Your task to perform on an android device: Show me productivity apps on the Play Store Image 0: 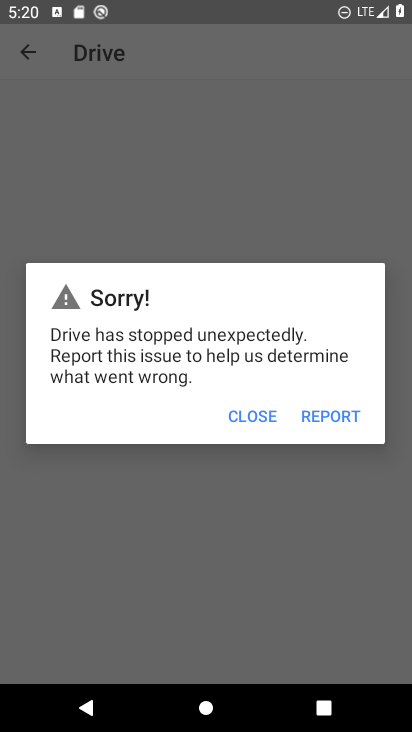
Step 0: press home button
Your task to perform on an android device: Show me productivity apps on the Play Store Image 1: 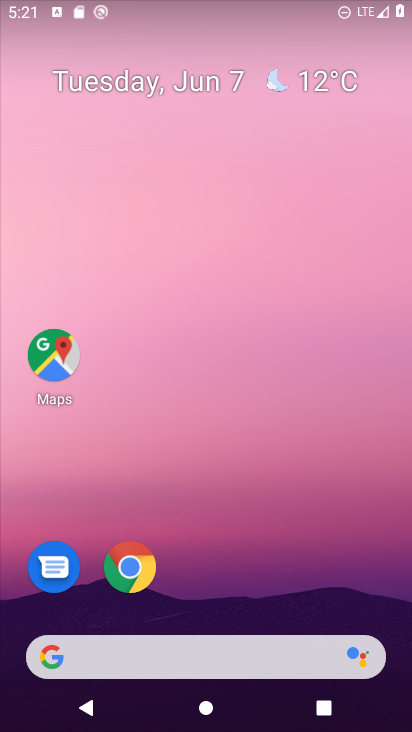
Step 1: drag from (196, 655) to (385, 7)
Your task to perform on an android device: Show me productivity apps on the Play Store Image 2: 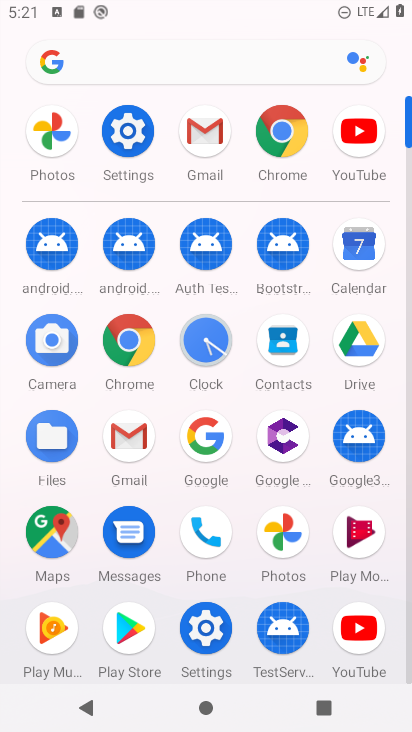
Step 2: click (141, 607)
Your task to perform on an android device: Show me productivity apps on the Play Store Image 3: 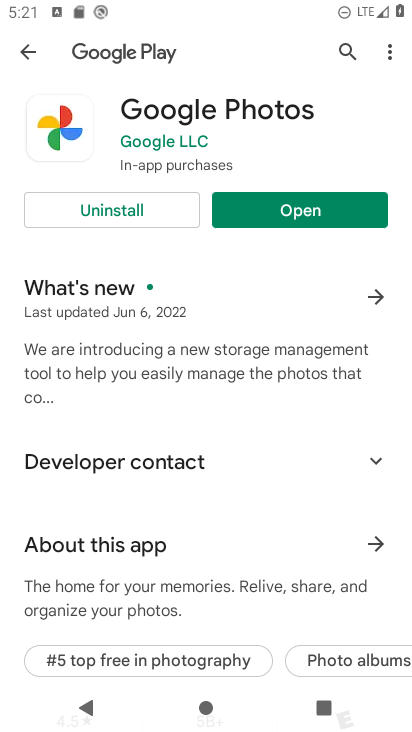
Step 3: click (291, 217)
Your task to perform on an android device: Show me productivity apps on the Play Store Image 4: 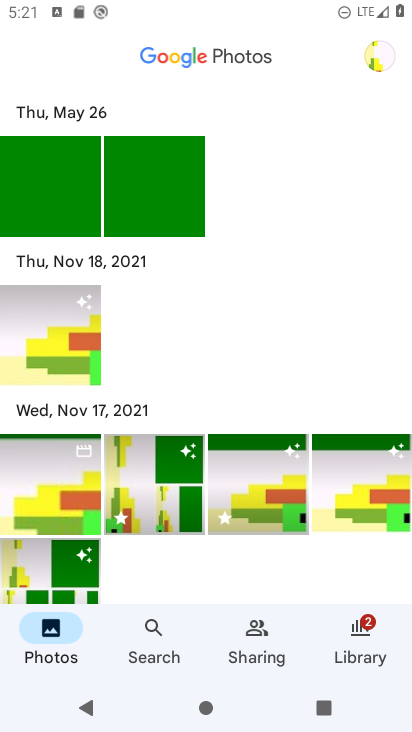
Step 4: press home button
Your task to perform on an android device: Show me productivity apps on the Play Store Image 5: 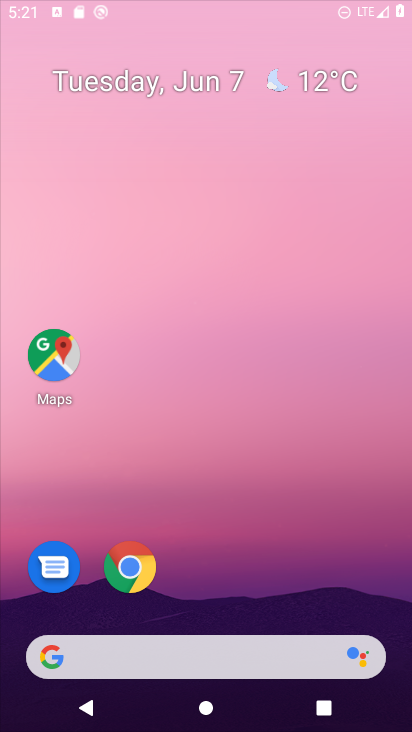
Step 5: drag from (310, 648) to (349, 91)
Your task to perform on an android device: Show me productivity apps on the Play Store Image 6: 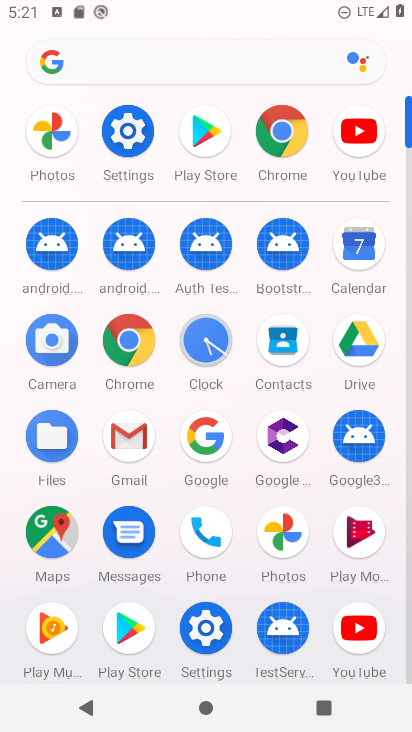
Step 6: click (138, 634)
Your task to perform on an android device: Show me productivity apps on the Play Store Image 7: 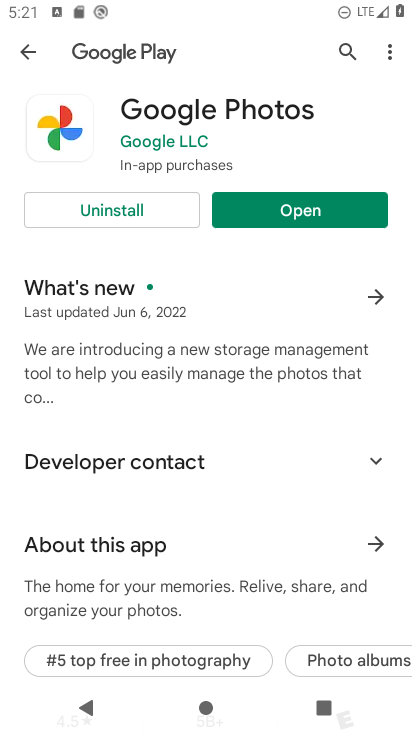
Step 7: press back button
Your task to perform on an android device: Show me productivity apps on the Play Store Image 8: 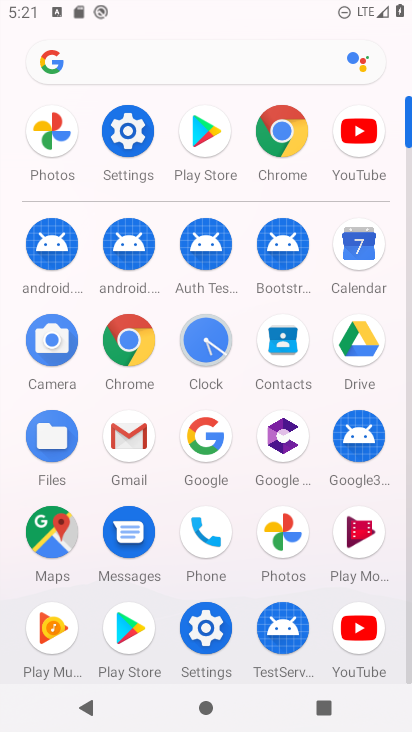
Step 8: click (122, 615)
Your task to perform on an android device: Show me productivity apps on the Play Store Image 9: 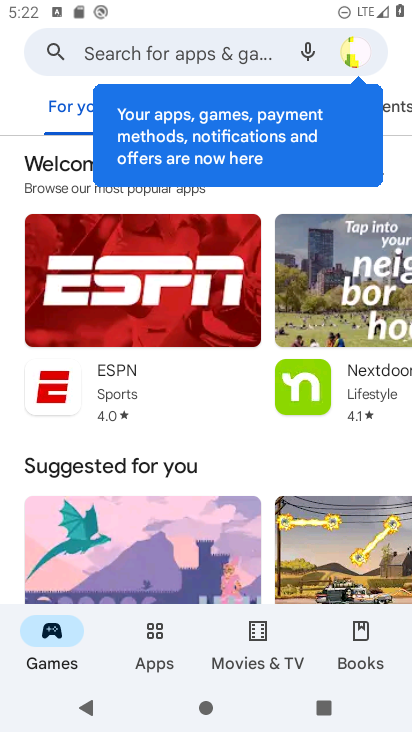
Step 9: click (159, 645)
Your task to perform on an android device: Show me productivity apps on the Play Store Image 10: 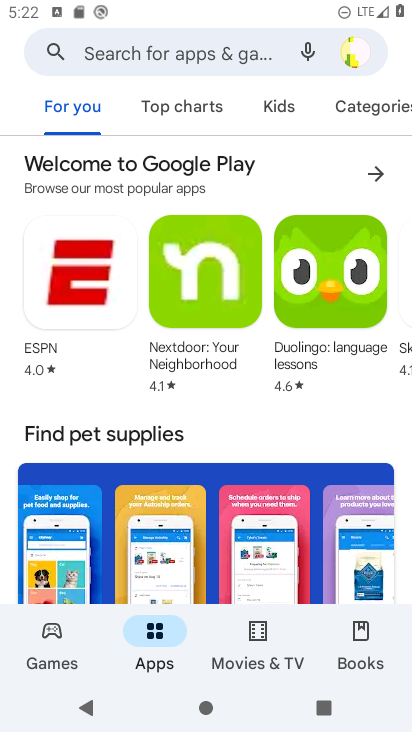
Step 10: drag from (251, 444) to (310, 62)
Your task to perform on an android device: Show me productivity apps on the Play Store Image 11: 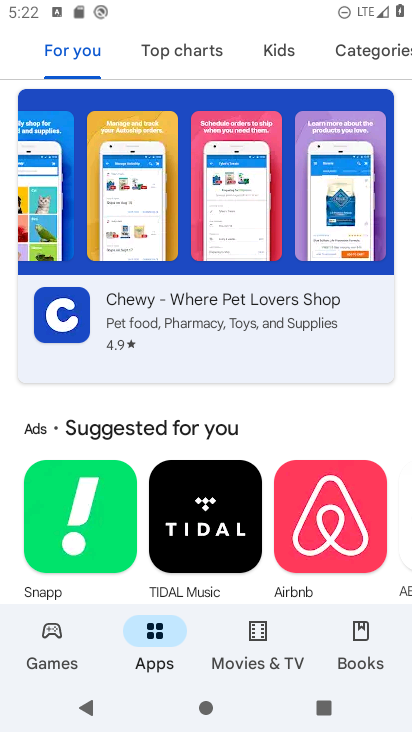
Step 11: drag from (221, 525) to (265, 122)
Your task to perform on an android device: Show me productivity apps on the Play Store Image 12: 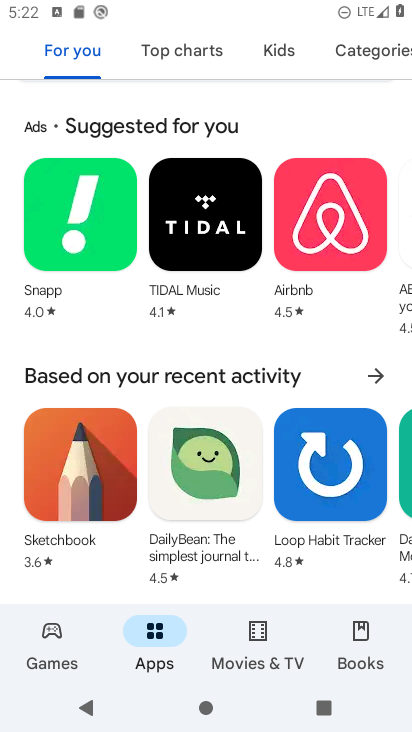
Step 12: drag from (208, 582) to (241, 114)
Your task to perform on an android device: Show me productivity apps on the Play Store Image 13: 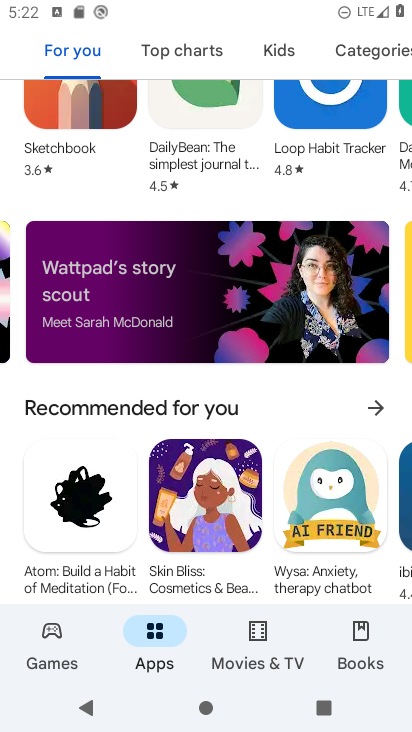
Step 13: drag from (231, 591) to (315, 110)
Your task to perform on an android device: Show me productivity apps on the Play Store Image 14: 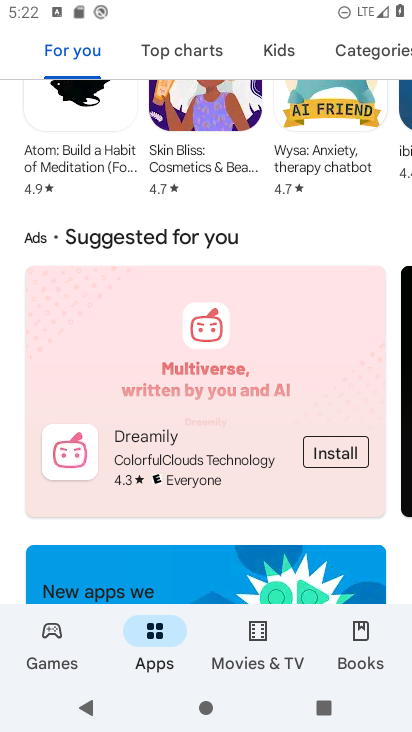
Step 14: drag from (202, 543) to (231, 168)
Your task to perform on an android device: Show me productivity apps on the Play Store Image 15: 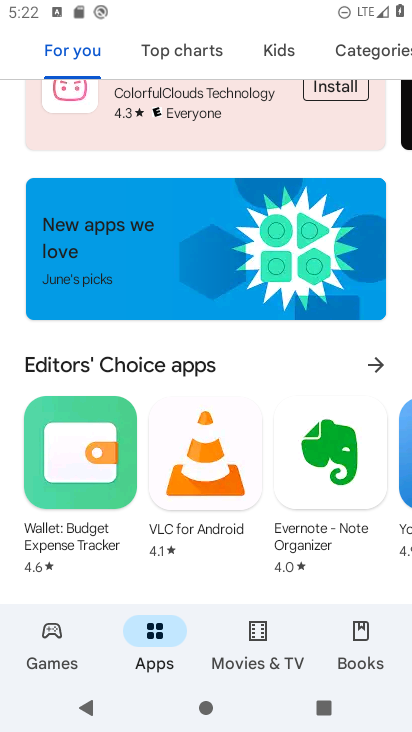
Step 15: drag from (168, 607) to (218, 125)
Your task to perform on an android device: Show me productivity apps on the Play Store Image 16: 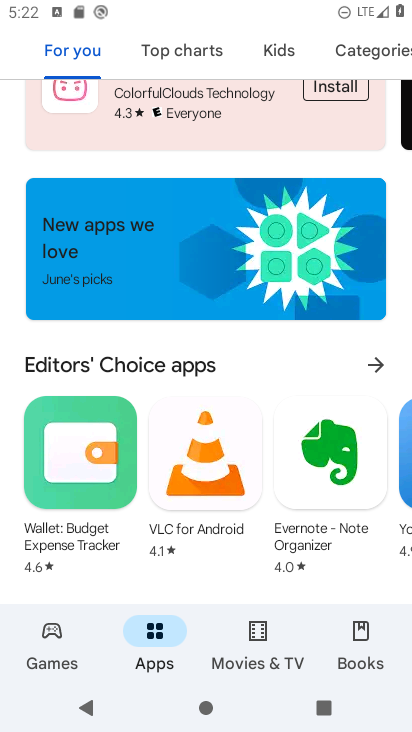
Step 16: drag from (209, 559) to (241, 119)
Your task to perform on an android device: Show me productivity apps on the Play Store Image 17: 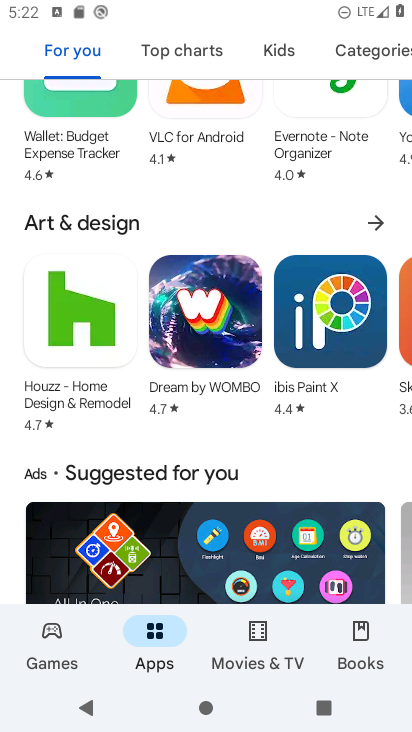
Step 17: drag from (234, 465) to (274, 38)
Your task to perform on an android device: Show me productivity apps on the Play Store Image 18: 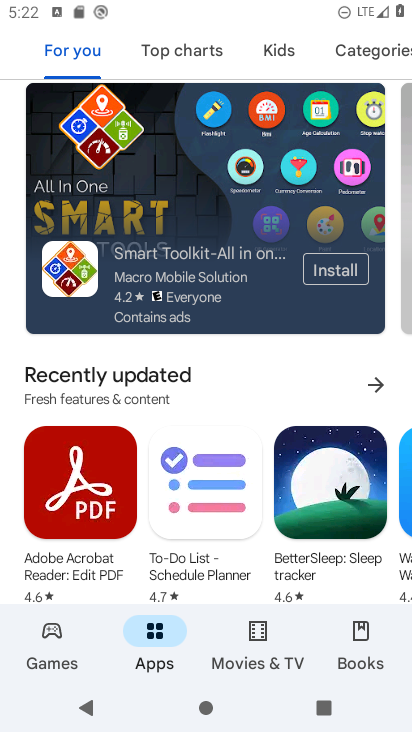
Step 18: drag from (226, 585) to (232, 141)
Your task to perform on an android device: Show me productivity apps on the Play Store Image 19: 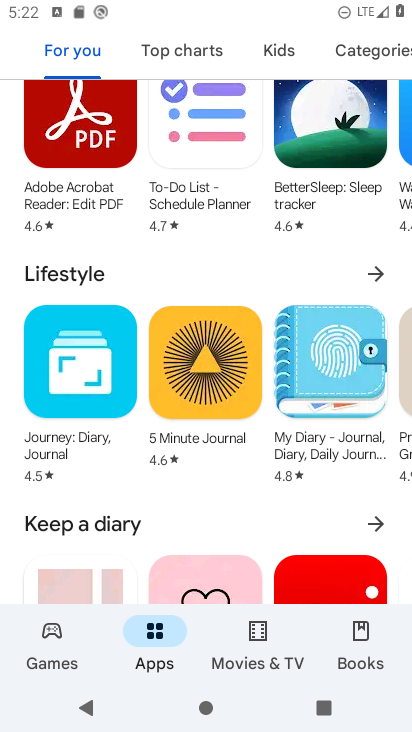
Step 19: drag from (221, 552) to (251, 134)
Your task to perform on an android device: Show me productivity apps on the Play Store Image 20: 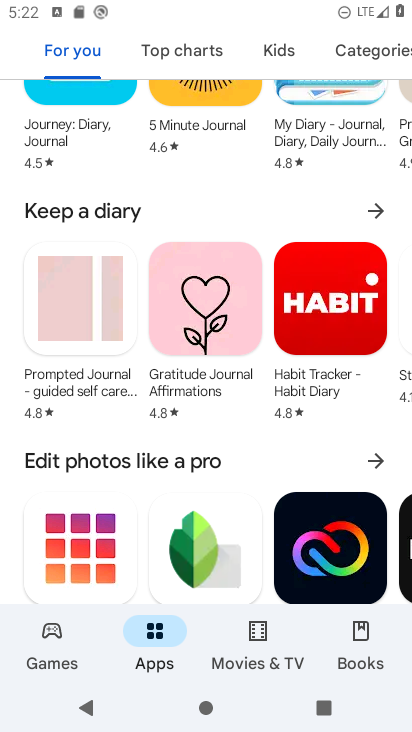
Step 20: drag from (211, 535) to (254, 119)
Your task to perform on an android device: Show me productivity apps on the Play Store Image 21: 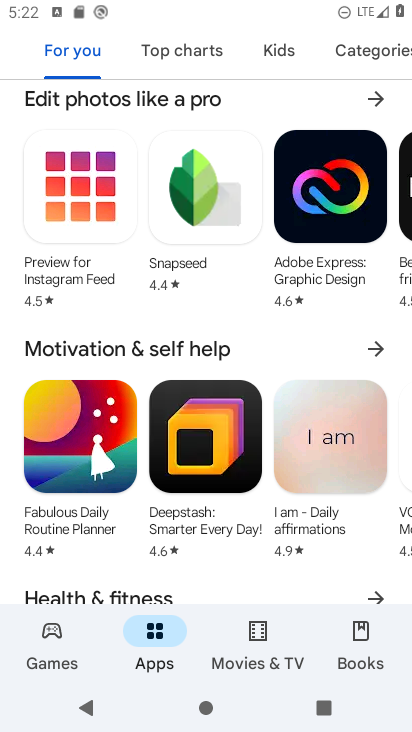
Step 21: drag from (213, 561) to (218, 188)
Your task to perform on an android device: Show me productivity apps on the Play Store Image 22: 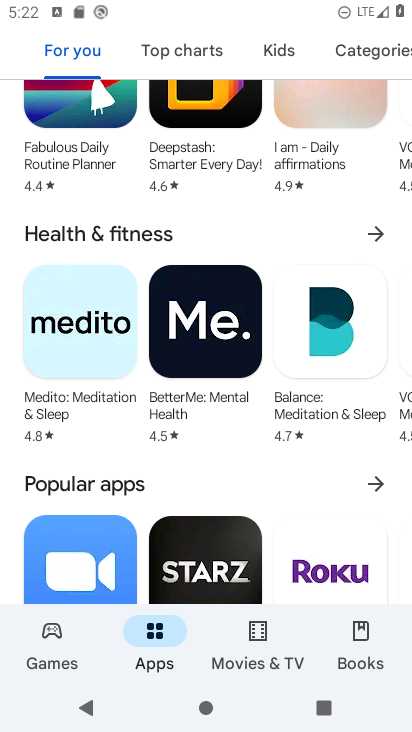
Step 22: drag from (204, 549) to (237, 113)
Your task to perform on an android device: Show me productivity apps on the Play Store Image 23: 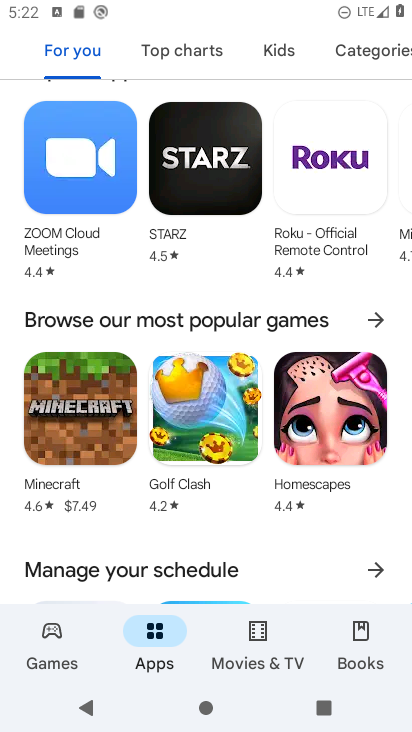
Step 23: drag from (262, 572) to (315, 168)
Your task to perform on an android device: Show me productivity apps on the Play Store Image 24: 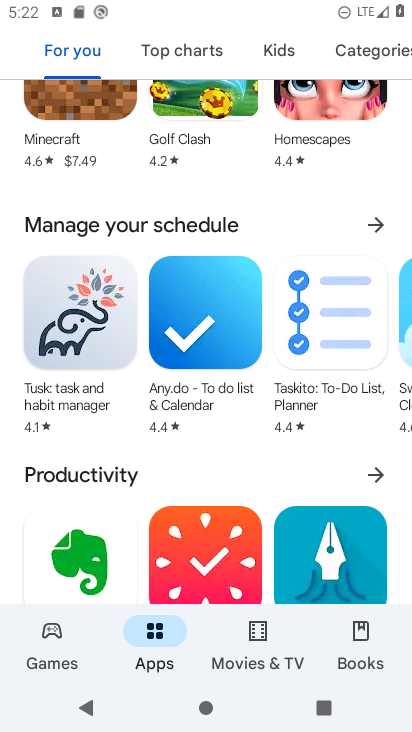
Step 24: click (382, 475)
Your task to perform on an android device: Show me productivity apps on the Play Store Image 25: 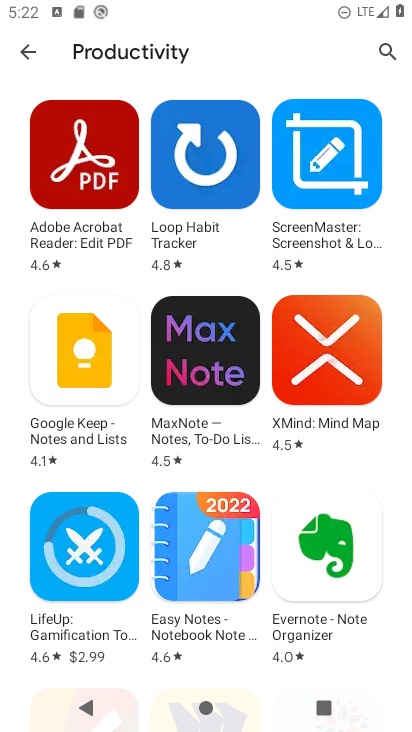
Step 25: task complete